Your task to perform on an android device: open the mobile data screen to see how much data has been used Image 0: 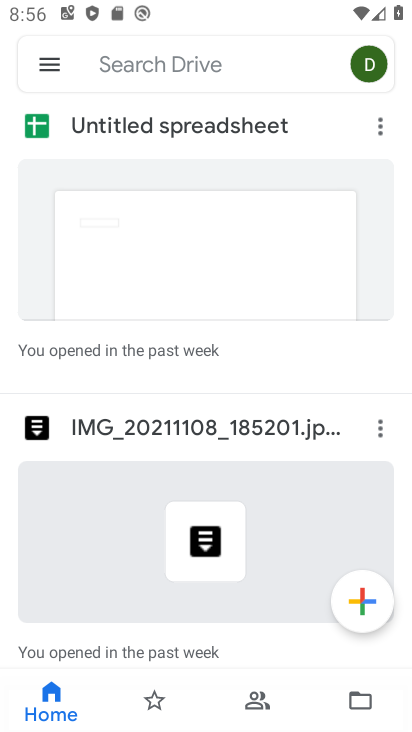
Step 0: press home button
Your task to perform on an android device: open the mobile data screen to see how much data has been used Image 1: 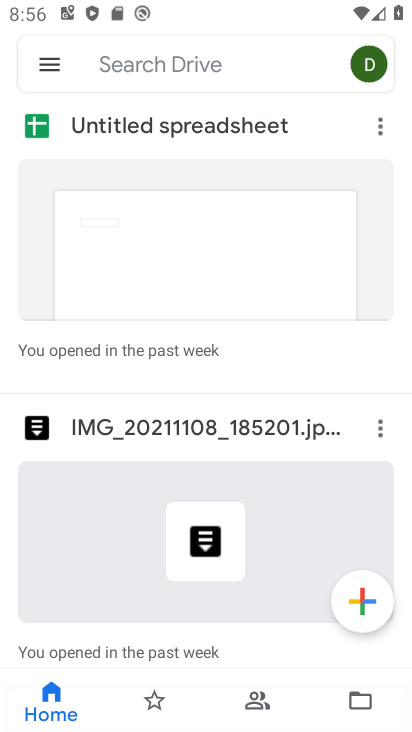
Step 1: press home button
Your task to perform on an android device: open the mobile data screen to see how much data has been used Image 2: 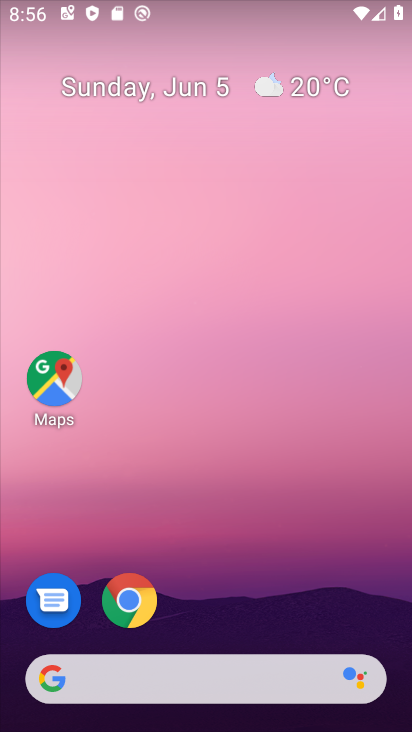
Step 2: drag from (255, 570) to (279, 39)
Your task to perform on an android device: open the mobile data screen to see how much data has been used Image 3: 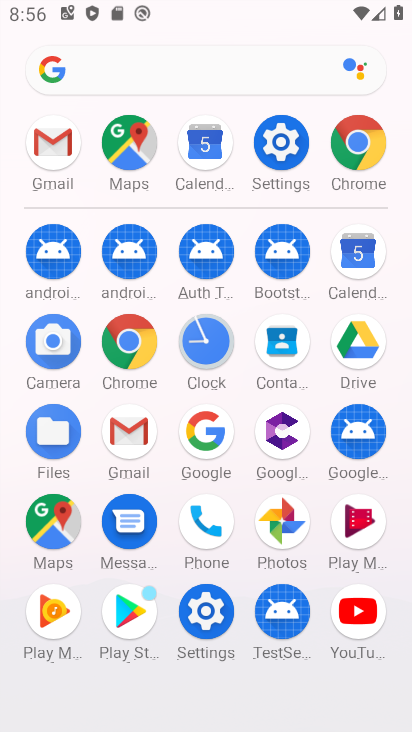
Step 3: click (273, 145)
Your task to perform on an android device: open the mobile data screen to see how much data has been used Image 4: 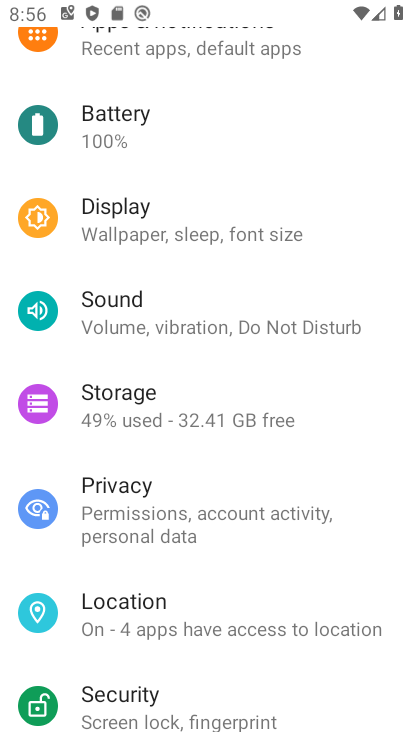
Step 4: drag from (244, 190) to (212, 624)
Your task to perform on an android device: open the mobile data screen to see how much data has been used Image 5: 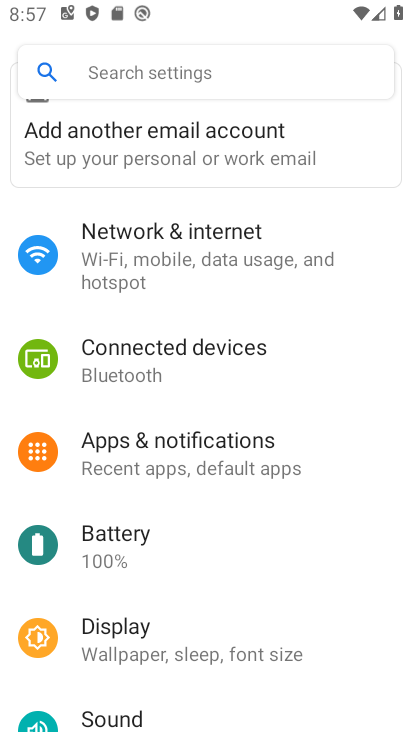
Step 5: click (243, 241)
Your task to perform on an android device: open the mobile data screen to see how much data has been used Image 6: 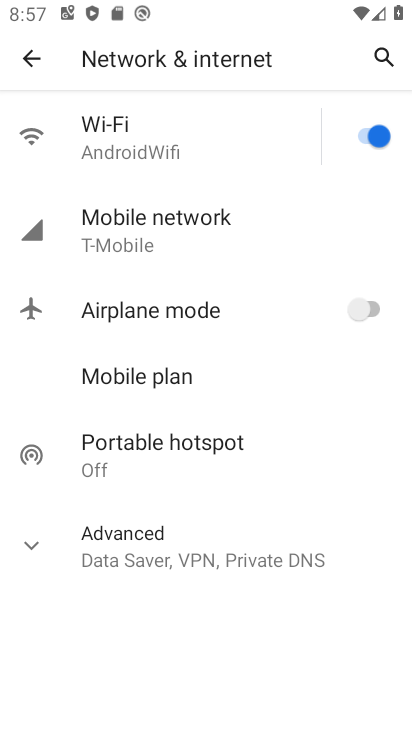
Step 6: click (243, 239)
Your task to perform on an android device: open the mobile data screen to see how much data has been used Image 7: 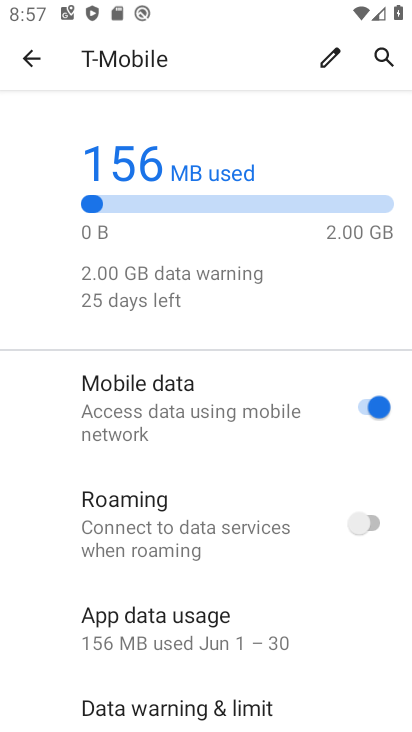
Step 7: task complete